Your task to perform on an android device: Check the weather Image 0: 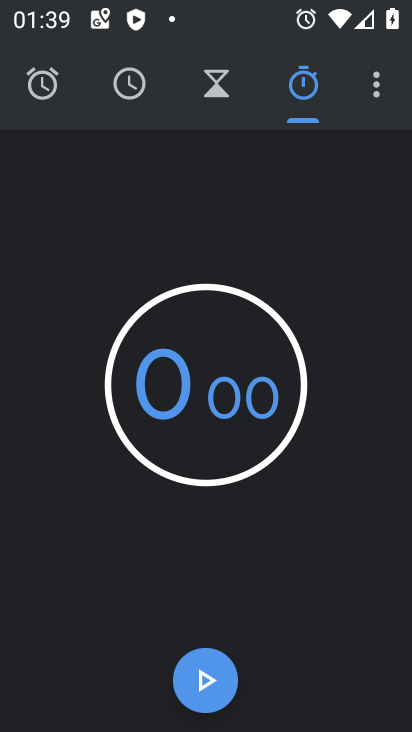
Step 0: press home button
Your task to perform on an android device: Check the weather Image 1: 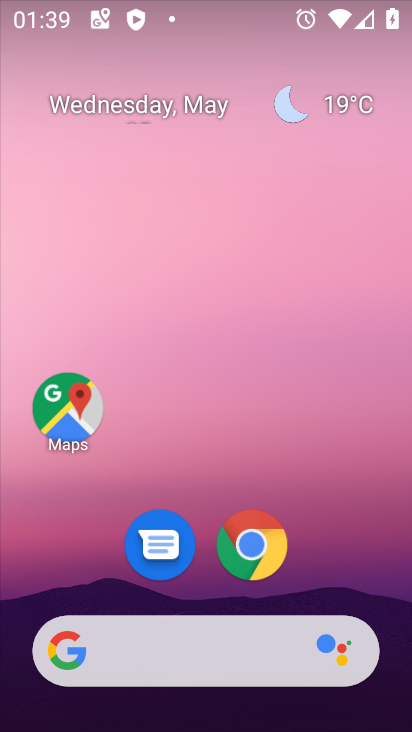
Step 1: click (348, 106)
Your task to perform on an android device: Check the weather Image 2: 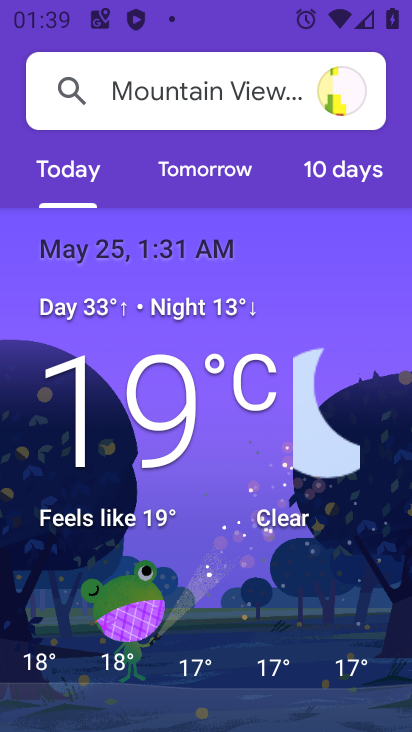
Step 2: task complete